Your task to perform on an android device: open app "VLC for Android" (install if not already installed) and enter user name: "Yves@outlook.com" and password: "internally" Image 0: 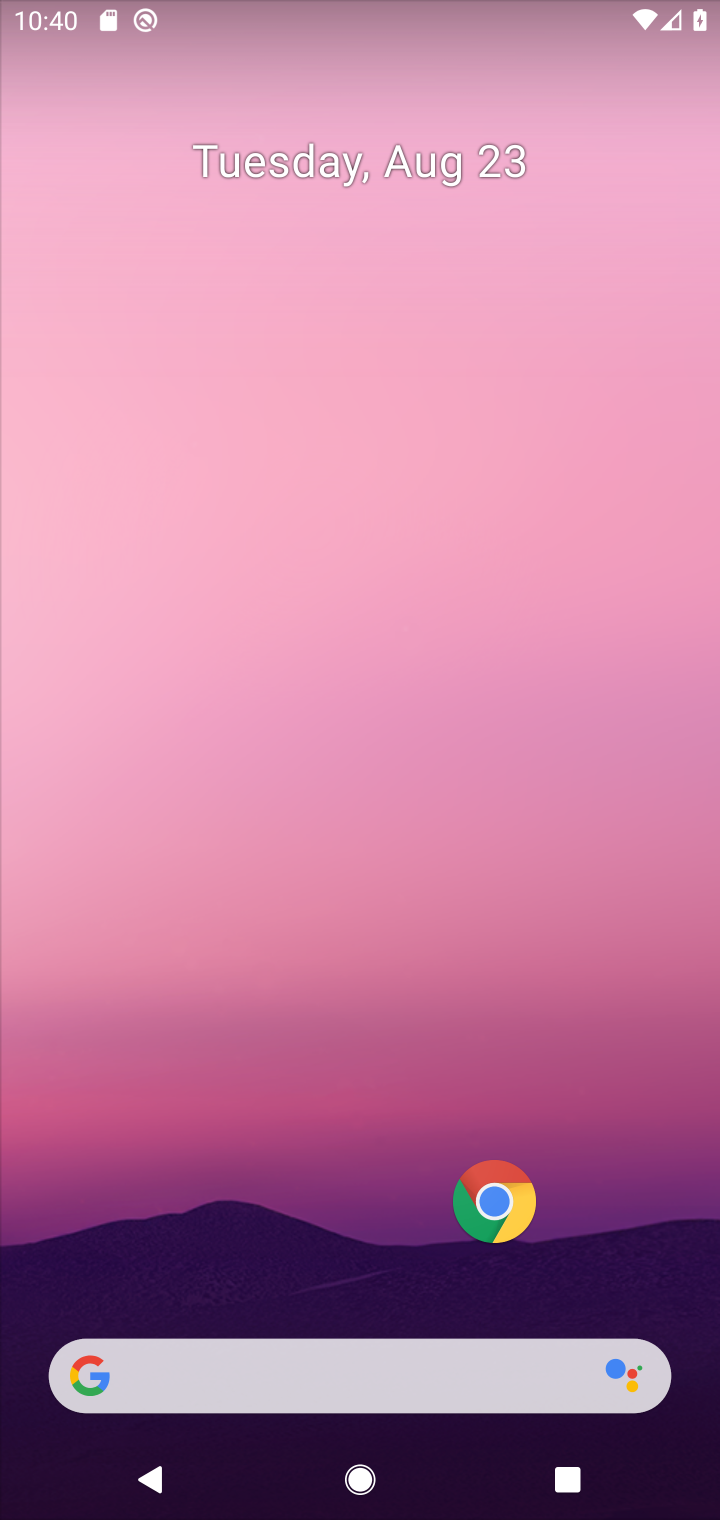
Step 0: click (347, 251)
Your task to perform on an android device: open app "VLC for Android" (install if not already installed) and enter user name: "Yves@outlook.com" and password: "internally" Image 1: 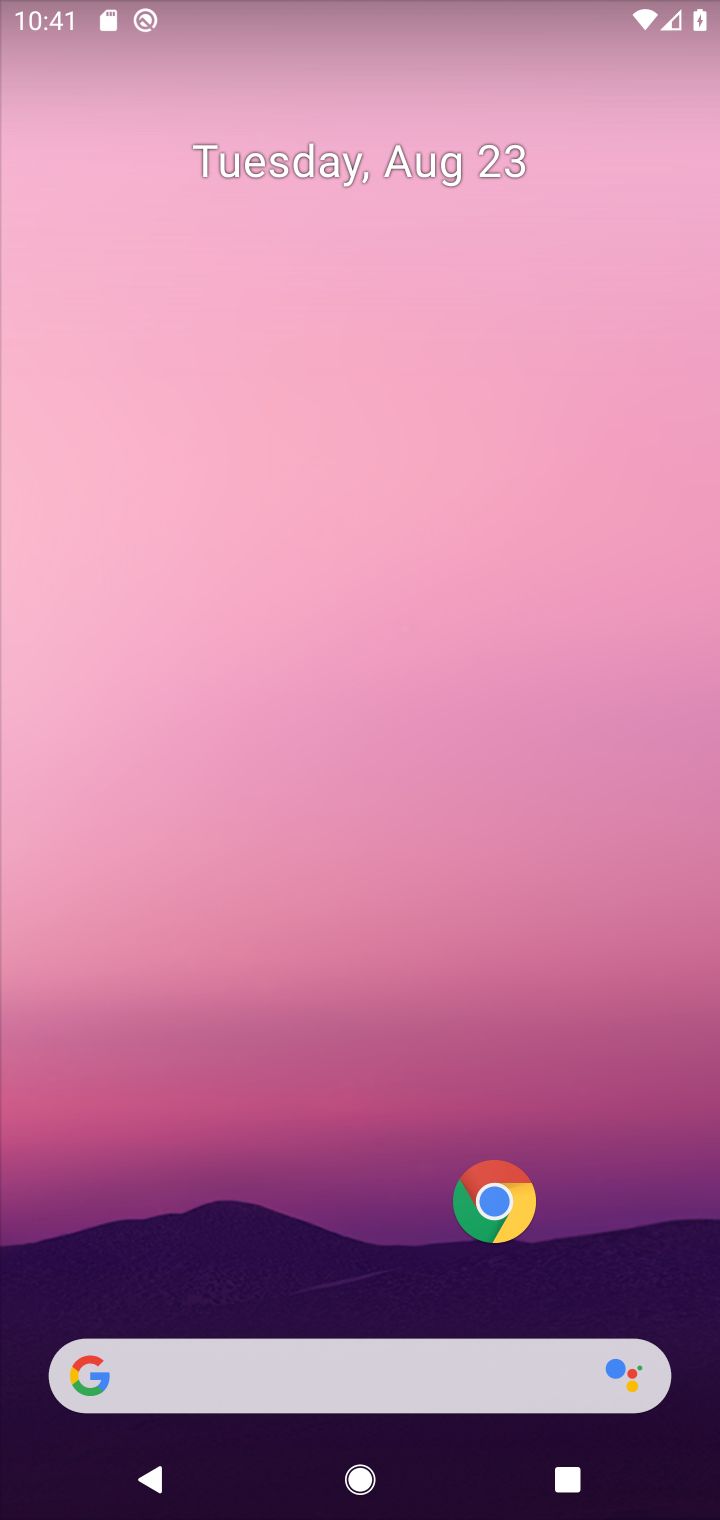
Step 1: drag from (293, 1360) to (264, 508)
Your task to perform on an android device: open app "VLC for Android" (install if not already installed) and enter user name: "Yves@outlook.com" and password: "internally" Image 2: 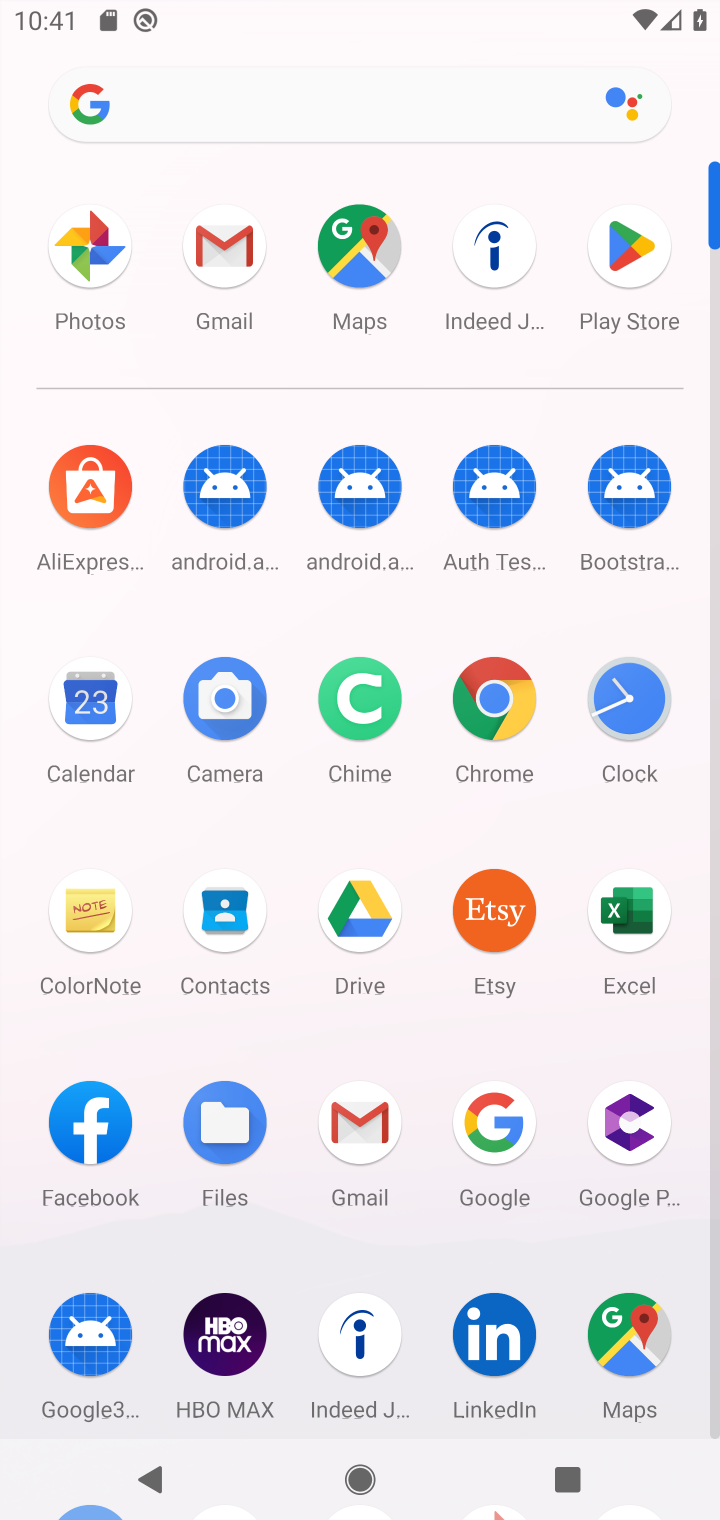
Step 2: click (622, 222)
Your task to perform on an android device: open app "VLC for Android" (install if not already installed) and enter user name: "Yves@outlook.com" and password: "internally" Image 3: 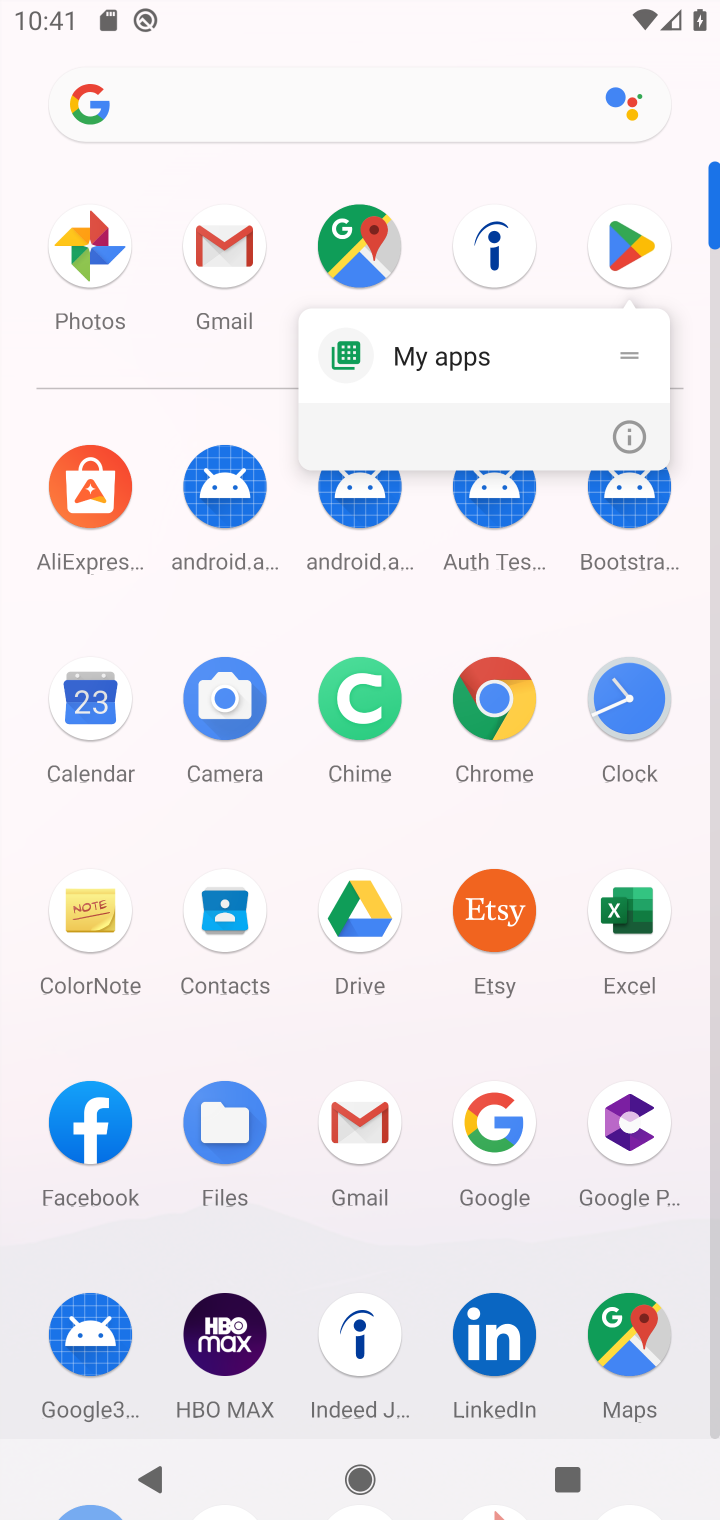
Step 3: click (621, 249)
Your task to perform on an android device: open app "VLC for Android" (install if not already installed) and enter user name: "Yves@outlook.com" and password: "internally" Image 4: 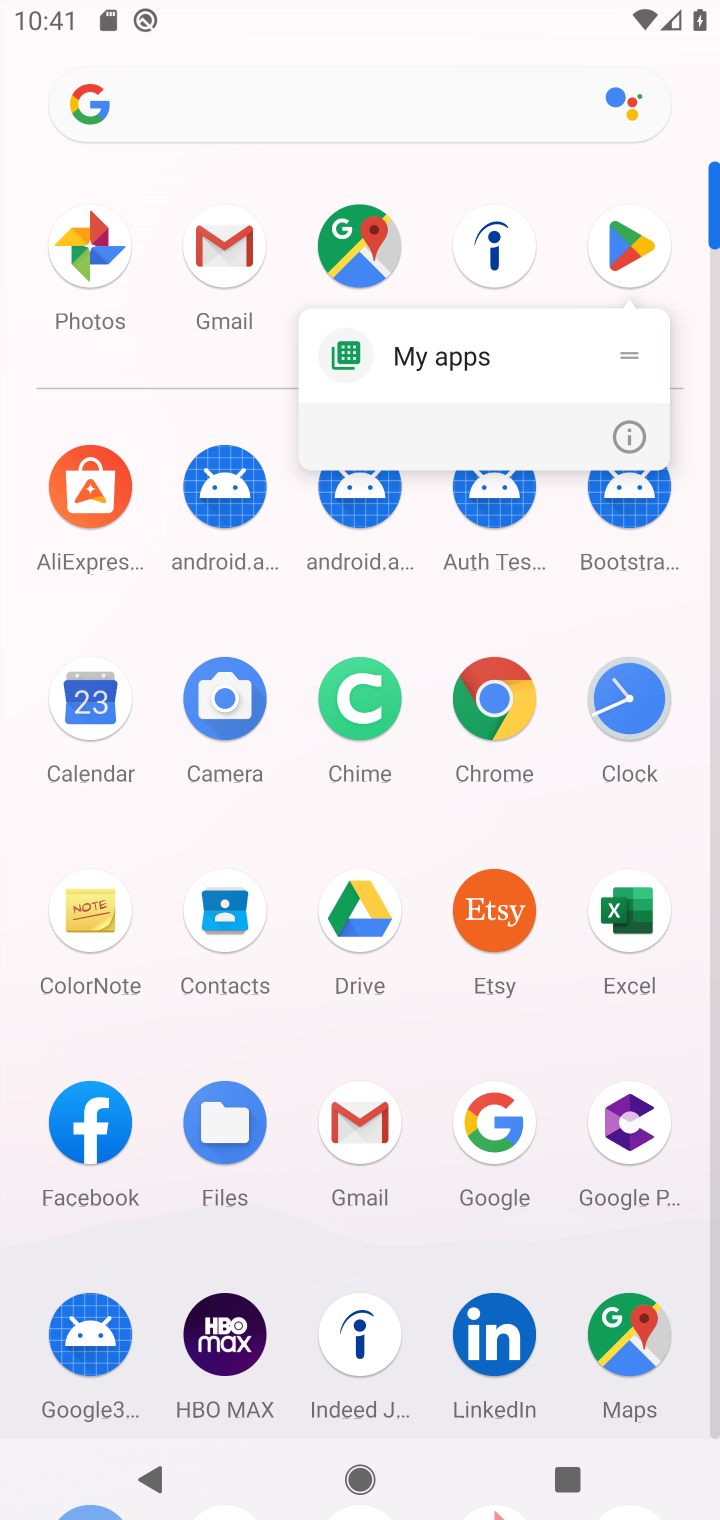
Step 4: drag from (457, 1261) to (462, 226)
Your task to perform on an android device: open app "VLC for Android" (install if not already installed) and enter user name: "Yves@outlook.com" and password: "internally" Image 5: 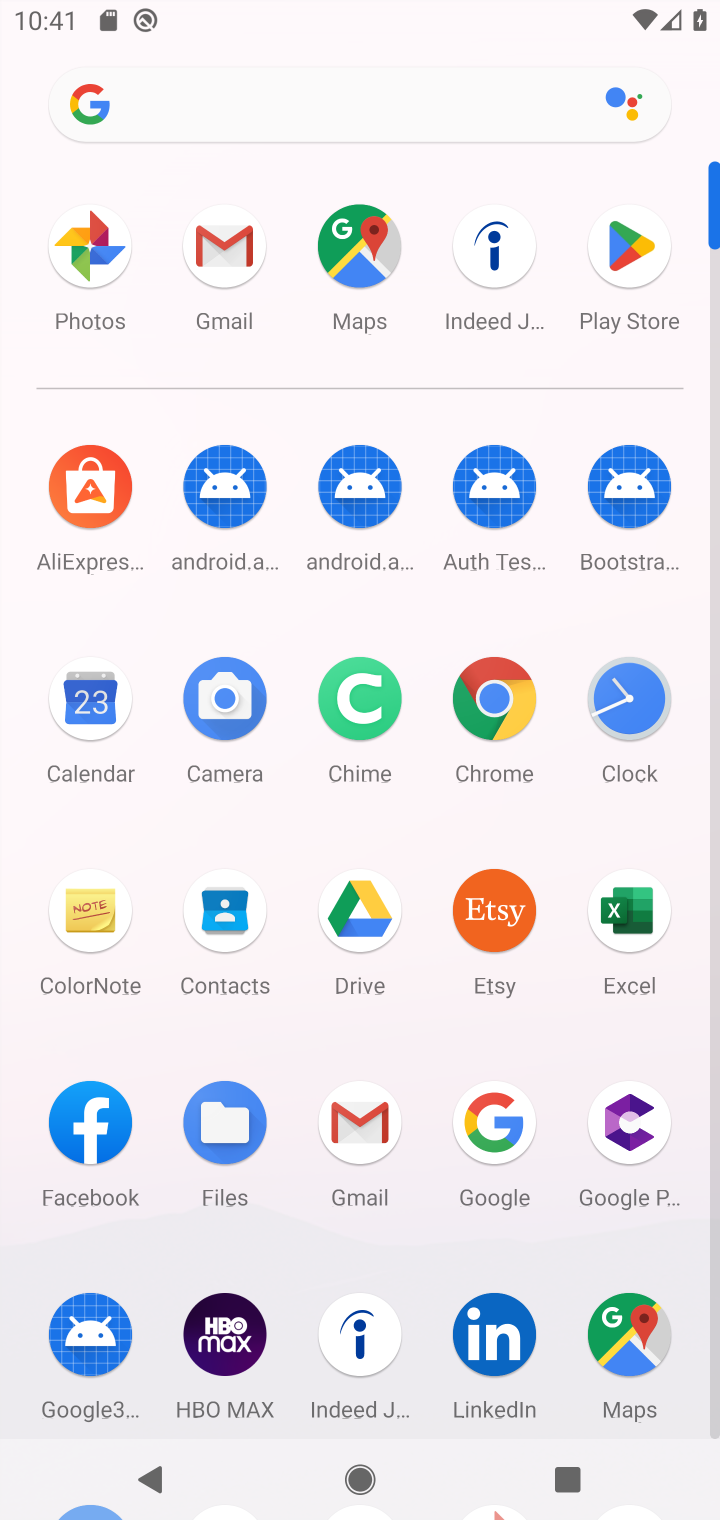
Step 5: drag from (367, 1259) to (447, 110)
Your task to perform on an android device: open app "VLC for Android" (install if not already installed) and enter user name: "Yves@outlook.com" and password: "internally" Image 6: 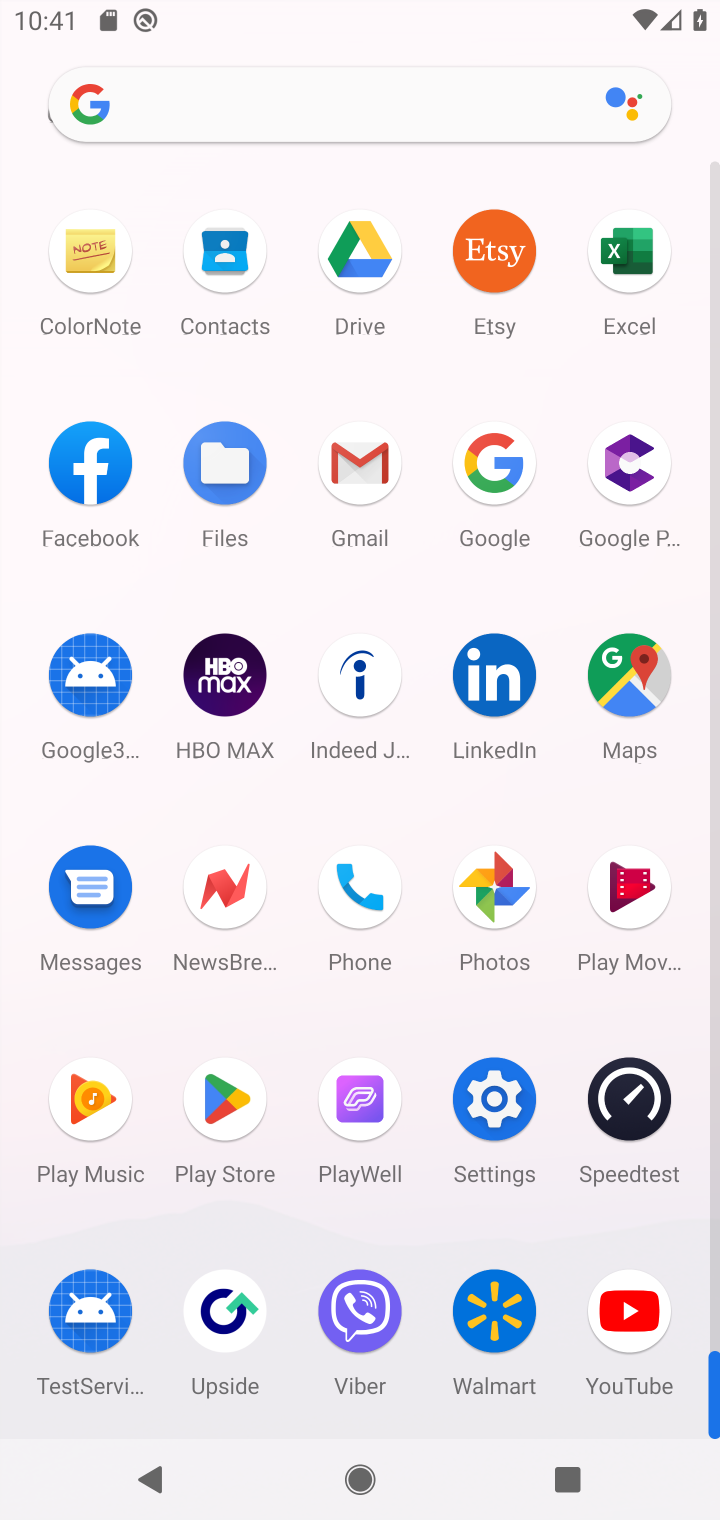
Step 6: click (209, 1098)
Your task to perform on an android device: open app "VLC for Android" (install if not already installed) and enter user name: "Yves@outlook.com" and password: "internally" Image 7: 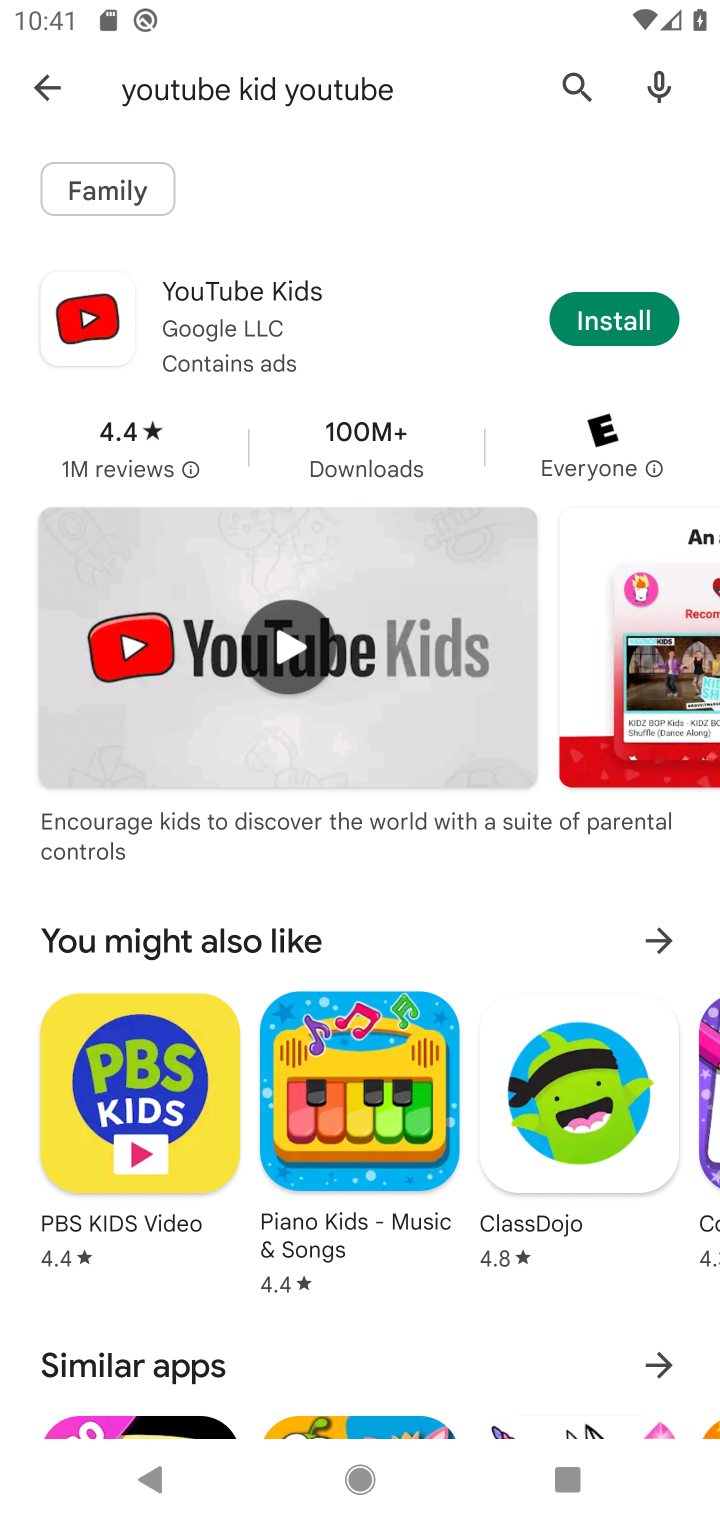
Step 7: click (52, 104)
Your task to perform on an android device: open app "VLC for Android" (install if not already installed) and enter user name: "Yves@outlook.com" and password: "internally" Image 8: 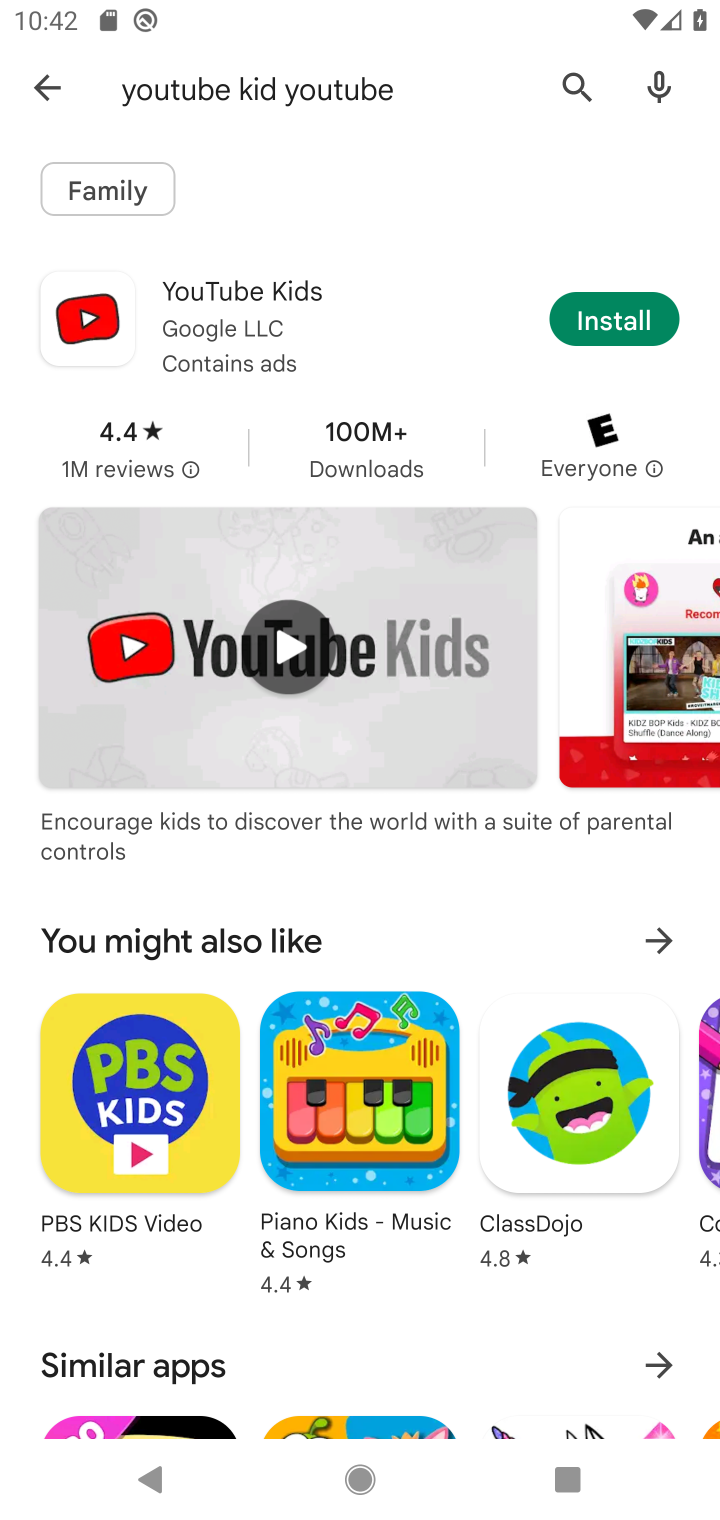
Step 8: click (40, 98)
Your task to perform on an android device: open app "VLC for Android" (install if not already installed) and enter user name: "Yves@outlook.com" and password: "internally" Image 9: 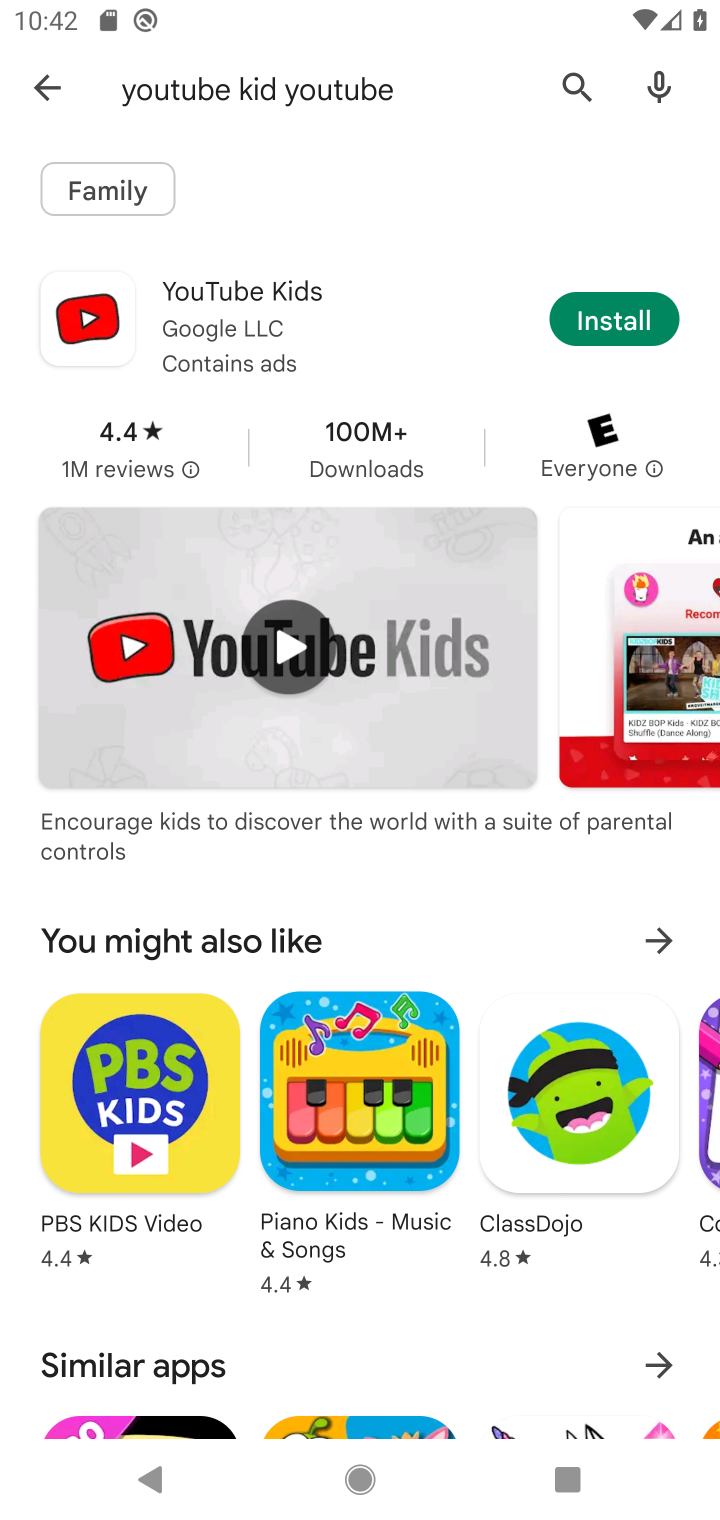
Step 9: click (52, 87)
Your task to perform on an android device: open app "VLC for Android" (install if not already installed) and enter user name: "Yves@outlook.com" and password: "internally" Image 10: 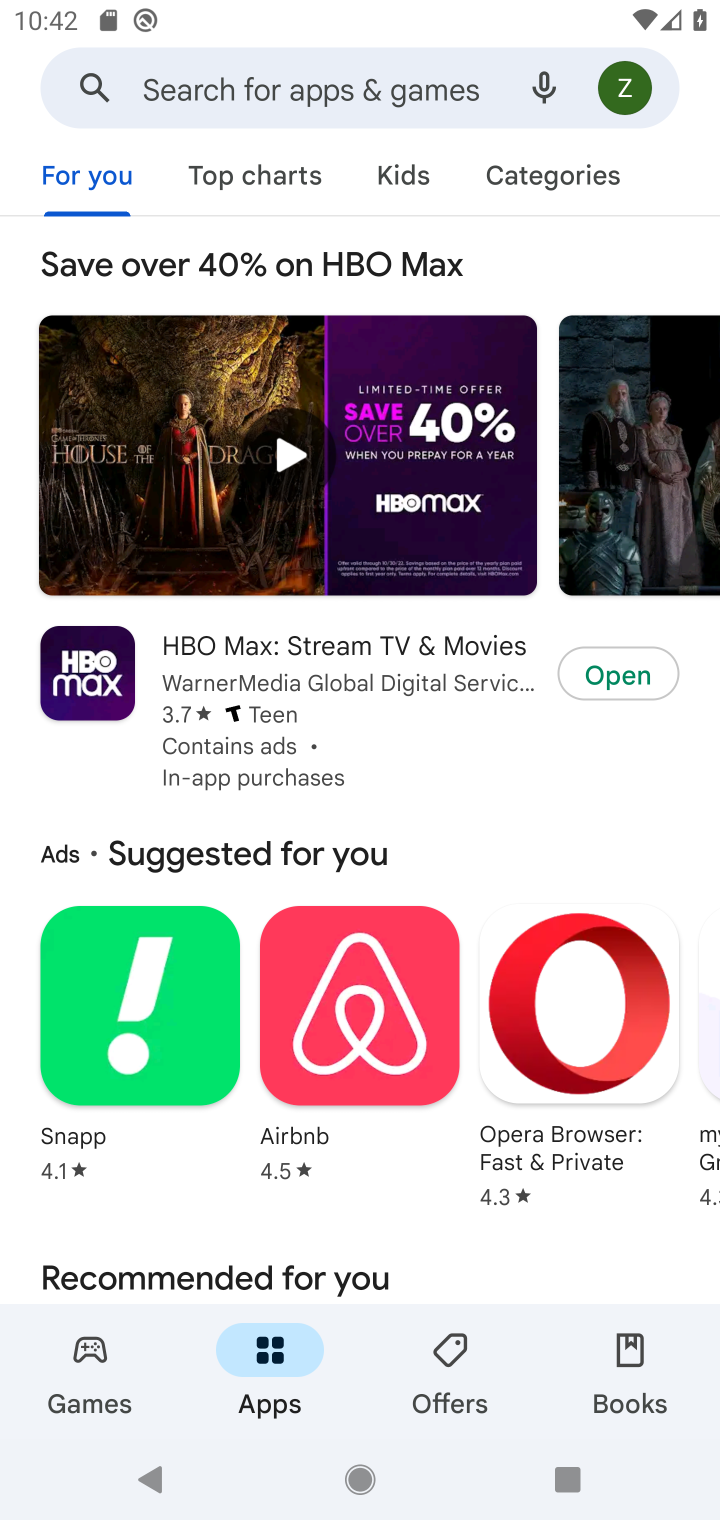
Step 10: click (282, 89)
Your task to perform on an android device: open app "VLC for Android" (install if not already installed) and enter user name: "Yves@outlook.com" and password: "internally" Image 11: 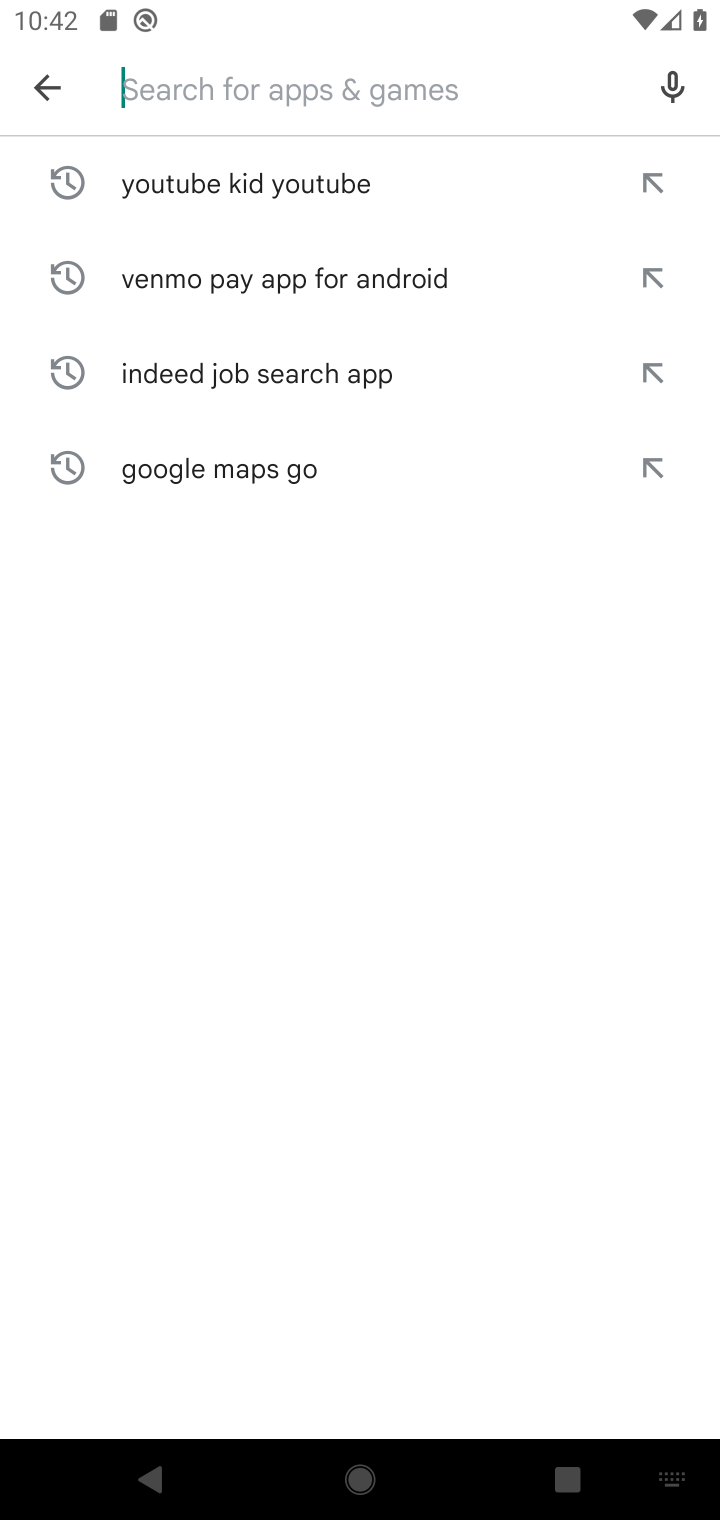
Step 11: type "VLC for Android "
Your task to perform on an android device: open app "VLC for Android" (install if not already installed) and enter user name: "Yves@outlook.com" and password: "internally" Image 12: 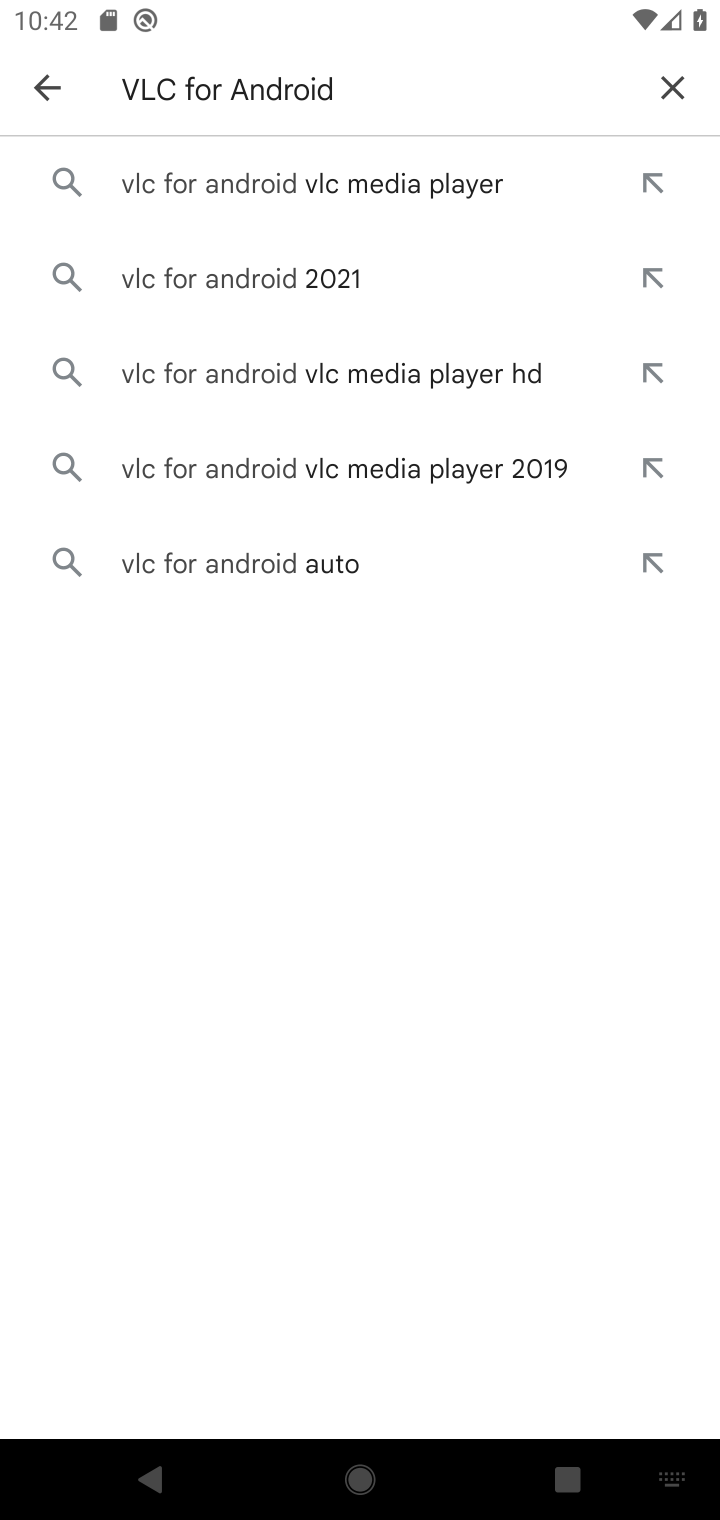
Step 12: click (238, 182)
Your task to perform on an android device: open app "VLC for Android" (install if not already installed) and enter user name: "Yves@outlook.com" and password: "internally" Image 13: 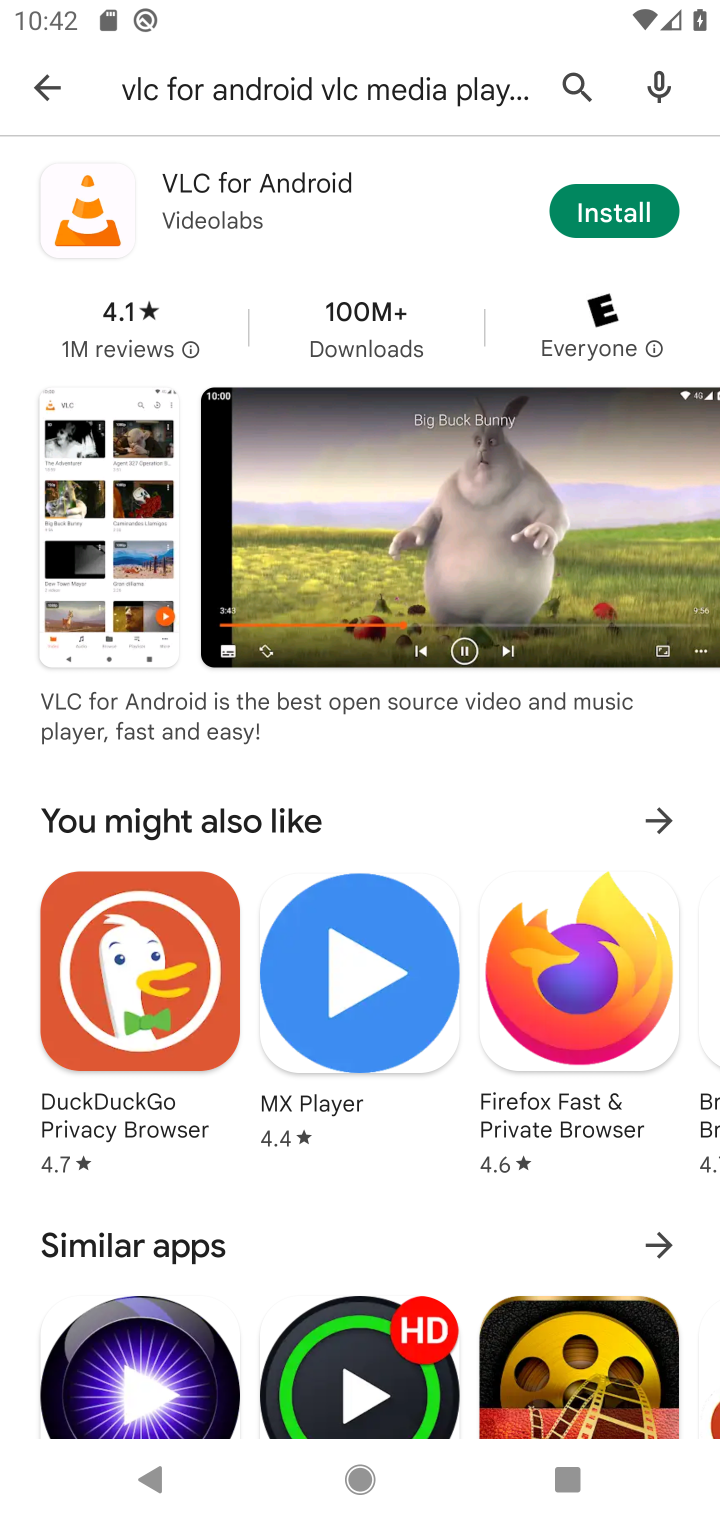
Step 13: click (618, 203)
Your task to perform on an android device: open app "VLC for Android" (install if not already installed) and enter user name: "Yves@outlook.com" and password: "internally" Image 14: 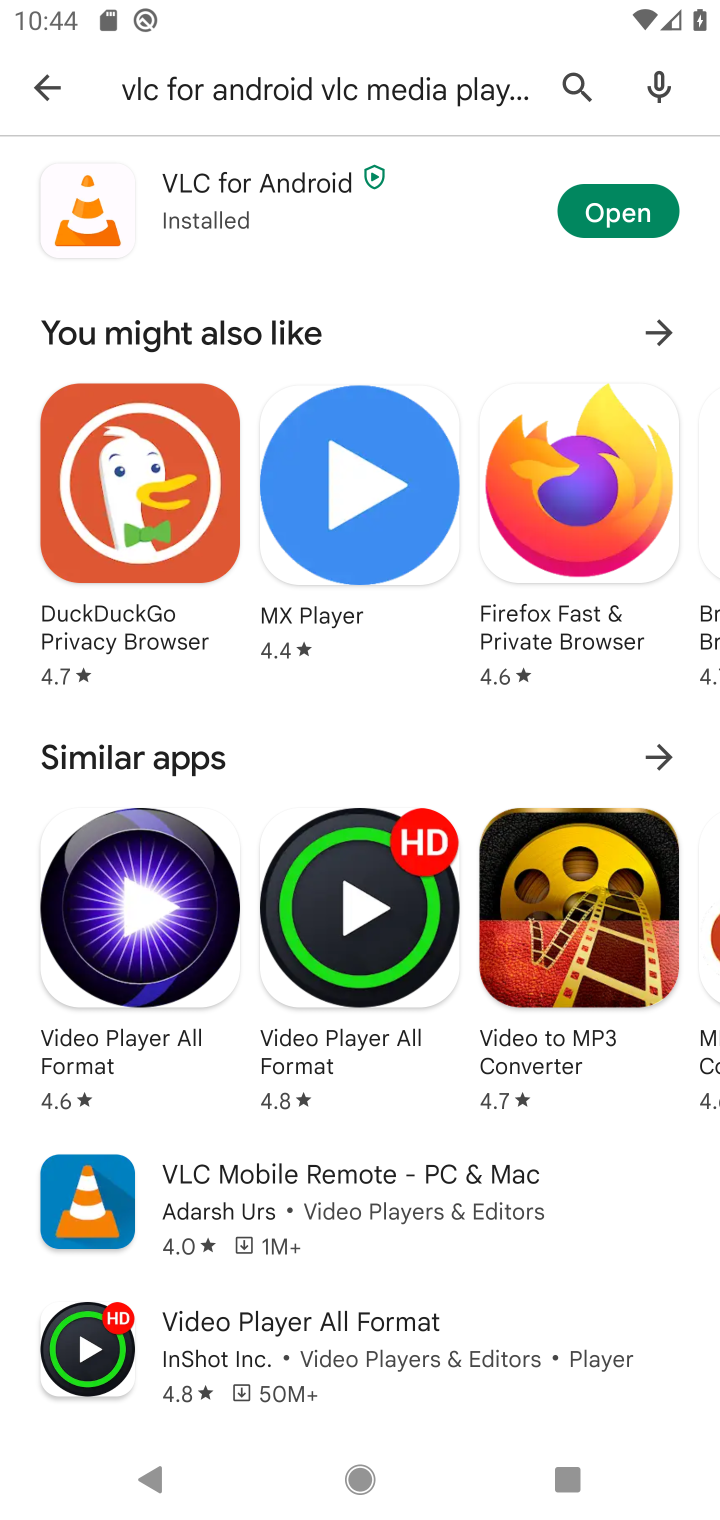
Step 14: task complete